Your task to perform on an android device: Open display settings Image 0: 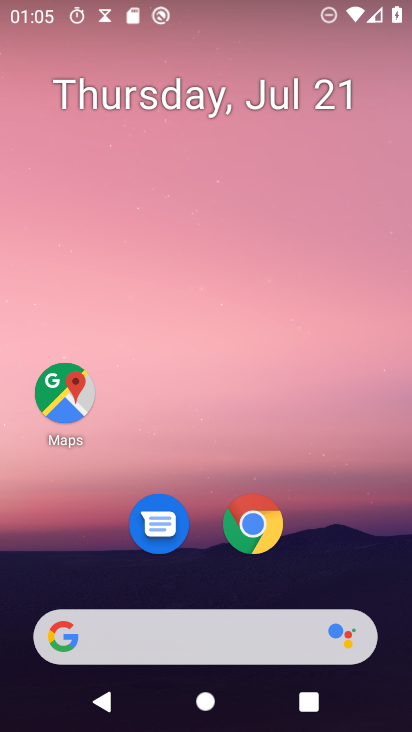
Step 0: drag from (203, 635) to (321, 170)
Your task to perform on an android device: Open display settings Image 1: 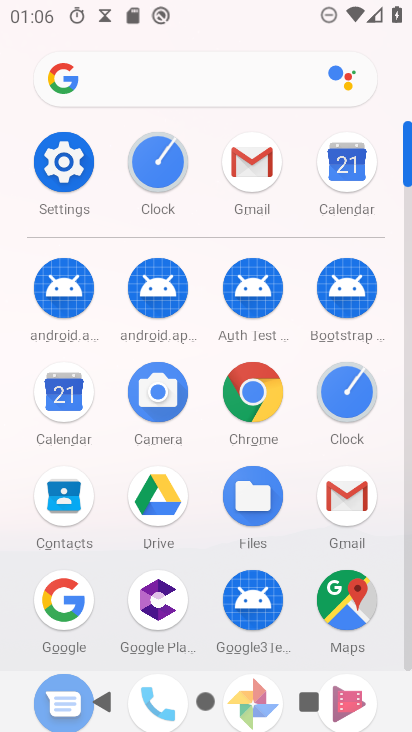
Step 1: click (66, 166)
Your task to perform on an android device: Open display settings Image 2: 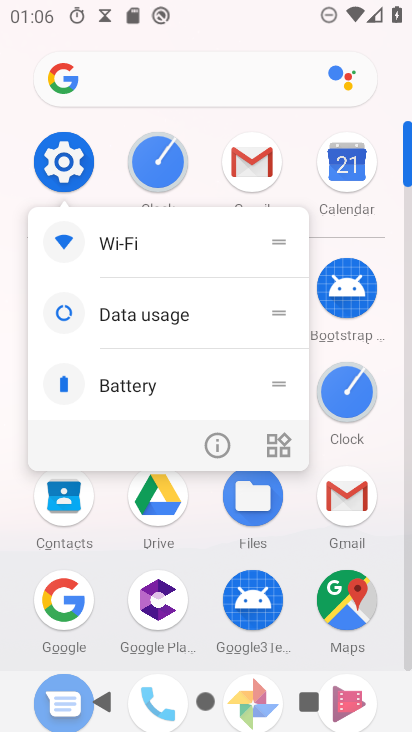
Step 2: click (65, 164)
Your task to perform on an android device: Open display settings Image 3: 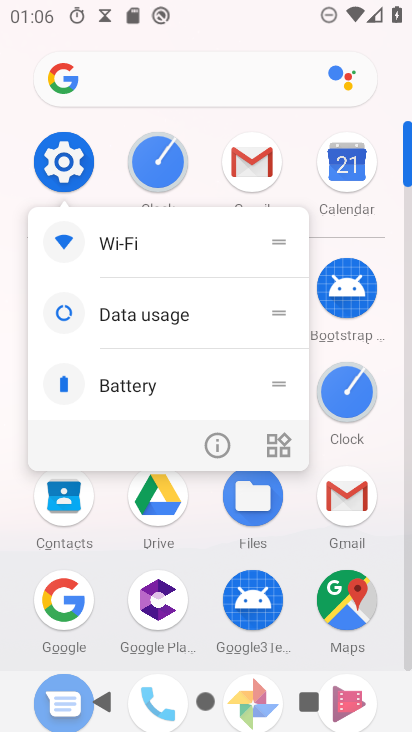
Step 3: click (65, 164)
Your task to perform on an android device: Open display settings Image 4: 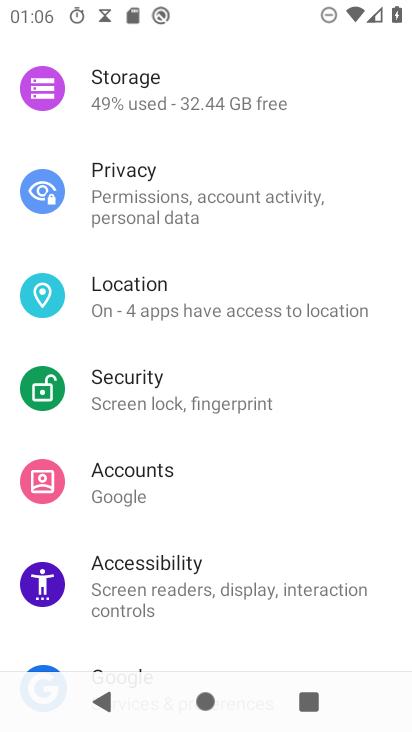
Step 4: drag from (254, 127) to (215, 664)
Your task to perform on an android device: Open display settings Image 5: 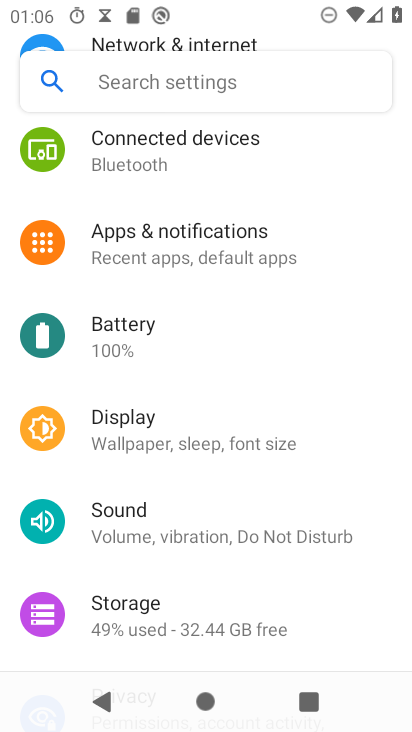
Step 5: click (168, 431)
Your task to perform on an android device: Open display settings Image 6: 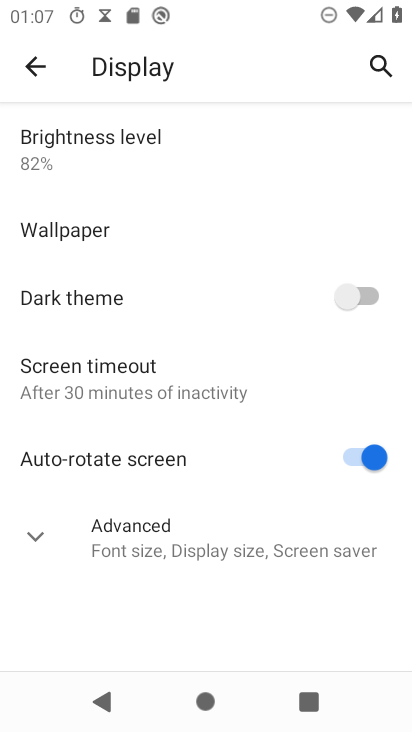
Step 6: task complete